Your task to perform on an android device: change text size in settings app Image 0: 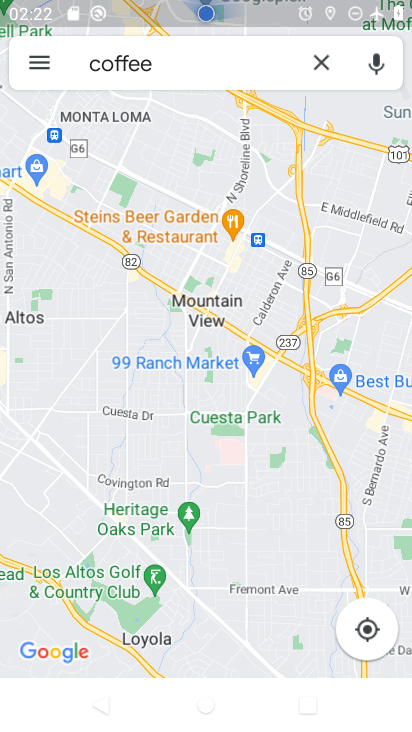
Step 0: press home button
Your task to perform on an android device: change text size in settings app Image 1: 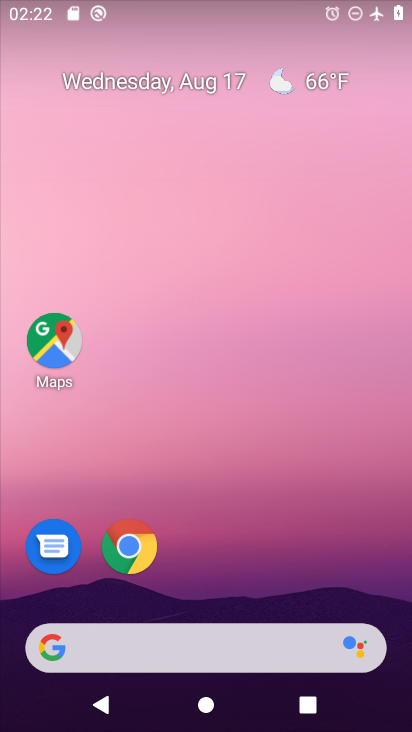
Step 1: drag from (263, 601) to (130, 2)
Your task to perform on an android device: change text size in settings app Image 2: 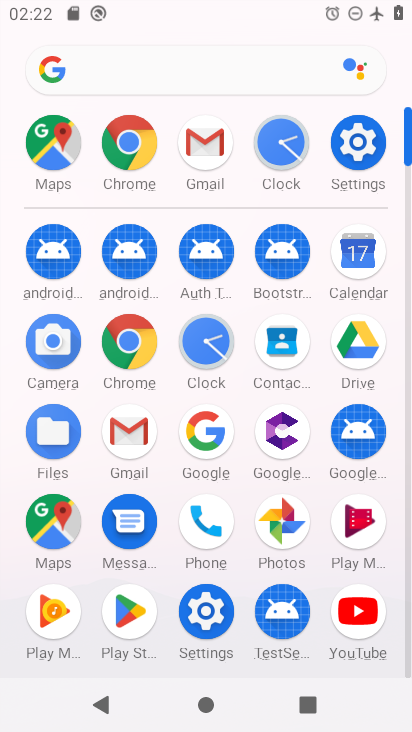
Step 2: click (350, 141)
Your task to perform on an android device: change text size in settings app Image 3: 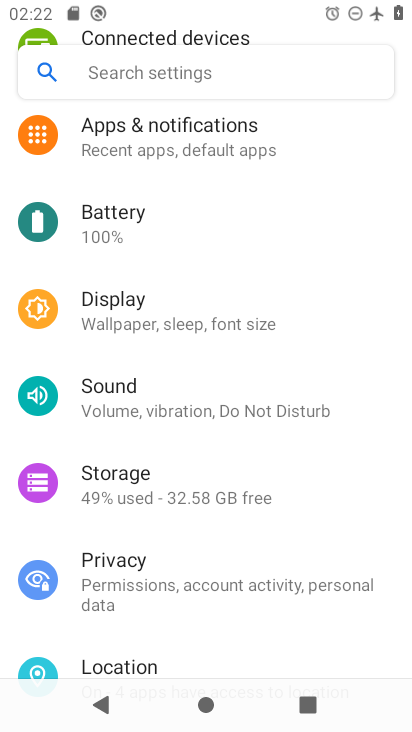
Step 3: click (93, 301)
Your task to perform on an android device: change text size in settings app Image 4: 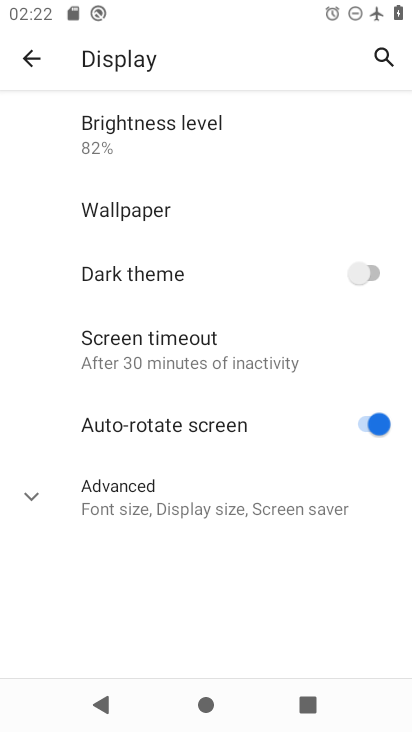
Step 4: click (83, 493)
Your task to perform on an android device: change text size in settings app Image 5: 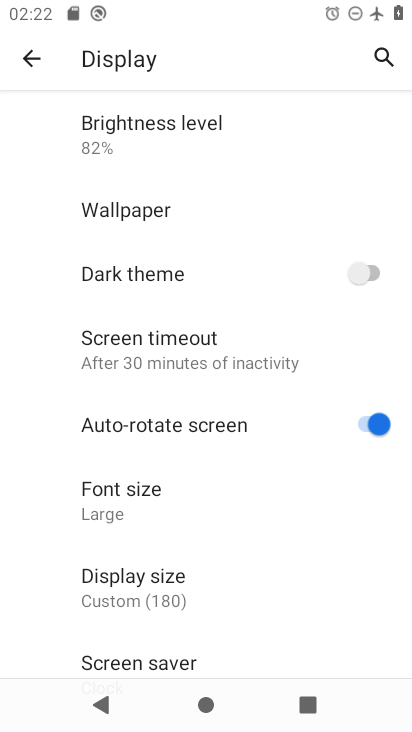
Step 5: click (90, 482)
Your task to perform on an android device: change text size in settings app Image 6: 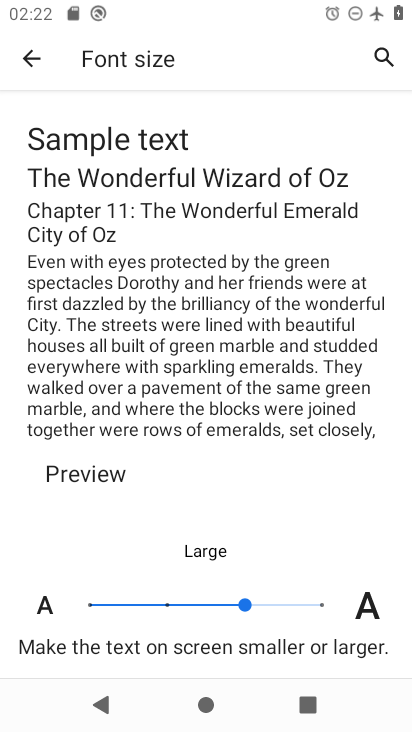
Step 6: click (189, 601)
Your task to perform on an android device: change text size in settings app Image 7: 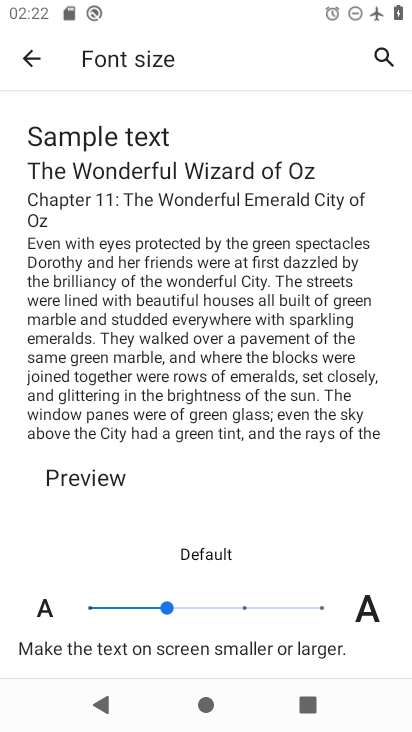
Step 7: task complete